Your task to perform on an android device: Go to Yahoo.com Image 0: 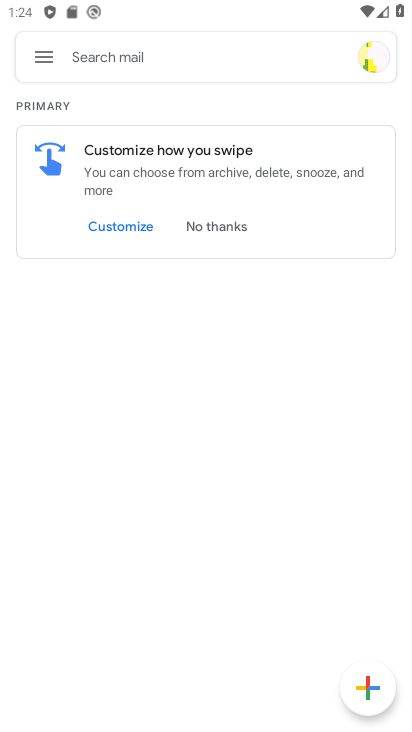
Step 0: press back button
Your task to perform on an android device: Go to Yahoo.com Image 1: 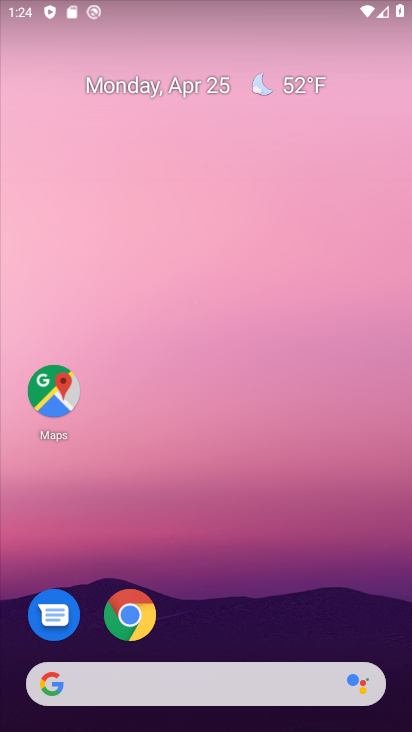
Step 1: click (131, 617)
Your task to perform on an android device: Go to Yahoo.com Image 2: 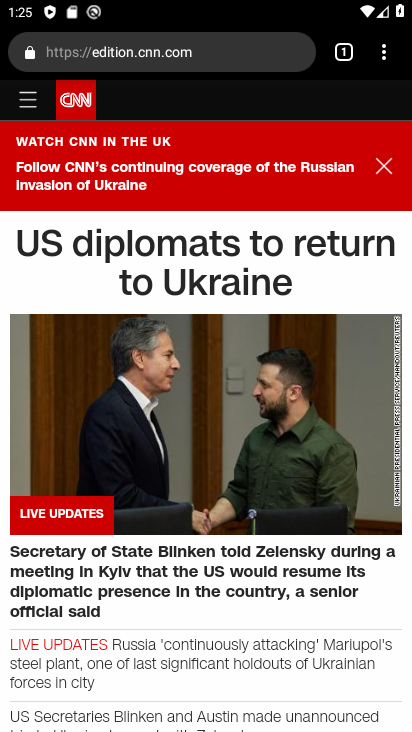
Step 2: click (297, 60)
Your task to perform on an android device: Go to Yahoo.com Image 3: 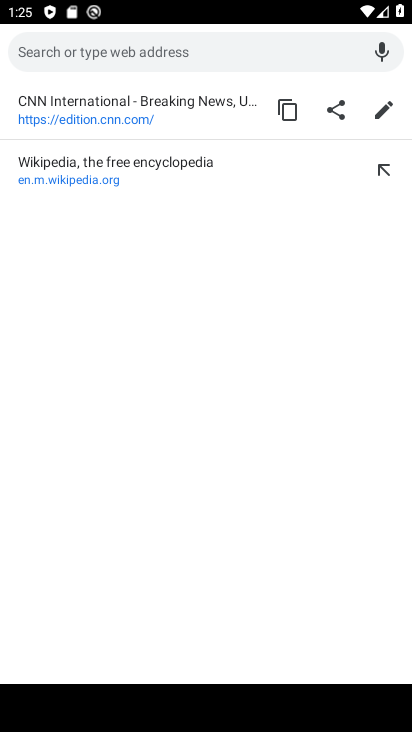
Step 3: type "Yahoo.com"
Your task to perform on an android device: Go to Yahoo.com Image 4: 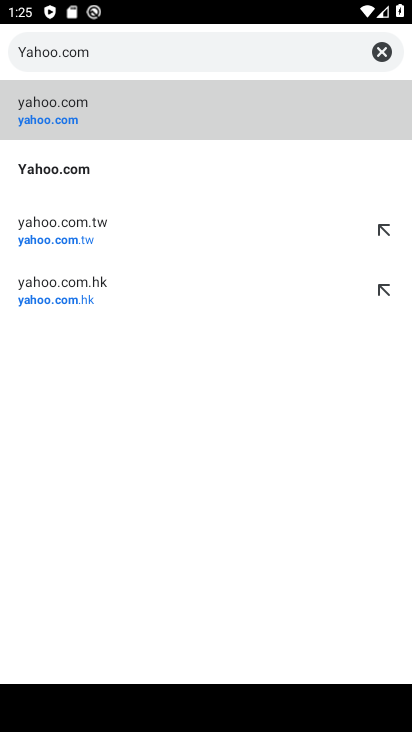
Step 4: click (26, 164)
Your task to perform on an android device: Go to Yahoo.com Image 5: 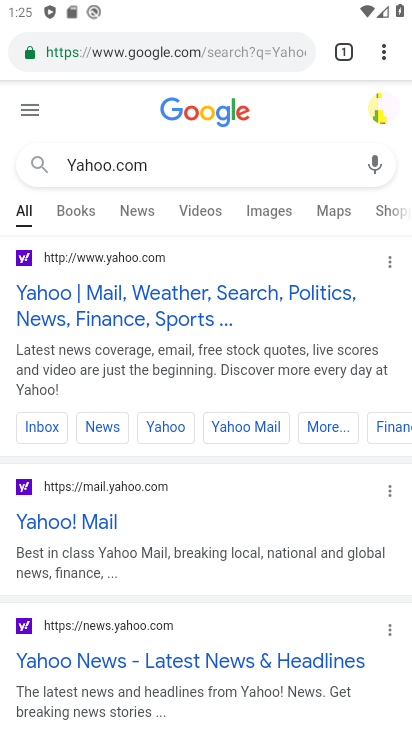
Step 5: click (120, 277)
Your task to perform on an android device: Go to Yahoo.com Image 6: 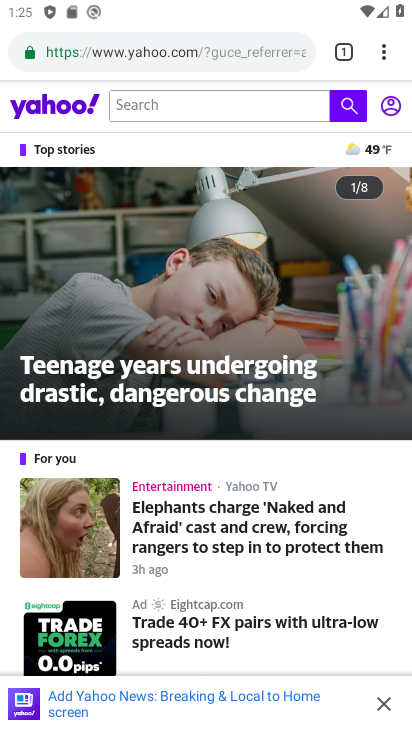
Step 6: task complete